Your task to perform on an android device: Open Yahoo.com Image 0: 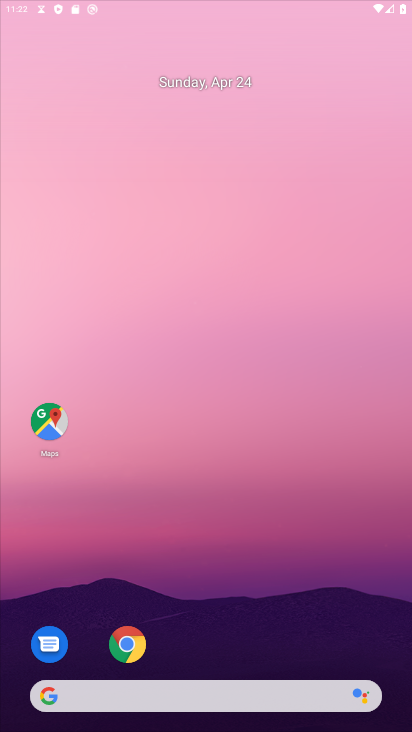
Step 0: click (367, 67)
Your task to perform on an android device: Open Yahoo.com Image 1: 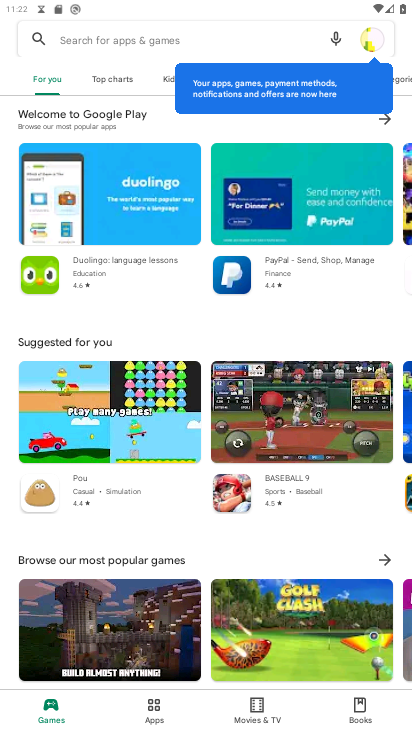
Step 1: press home button
Your task to perform on an android device: Open Yahoo.com Image 2: 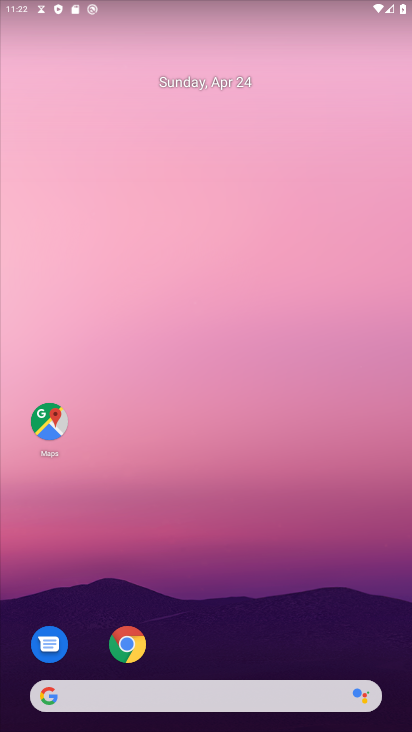
Step 2: click (130, 649)
Your task to perform on an android device: Open Yahoo.com Image 3: 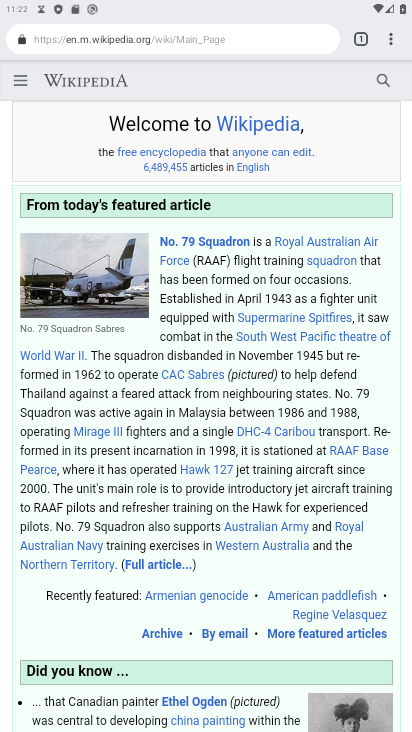
Step 3: click (149, 41)
Your task to perform on an android device: Open Yahoo.com Image 4: 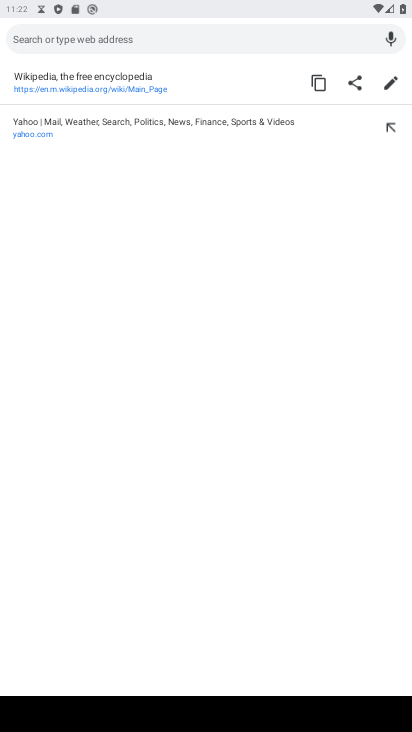
Step 4: type "yahoo.com"
Your task to perform on an android device: Open Yahoo.com Image 5: 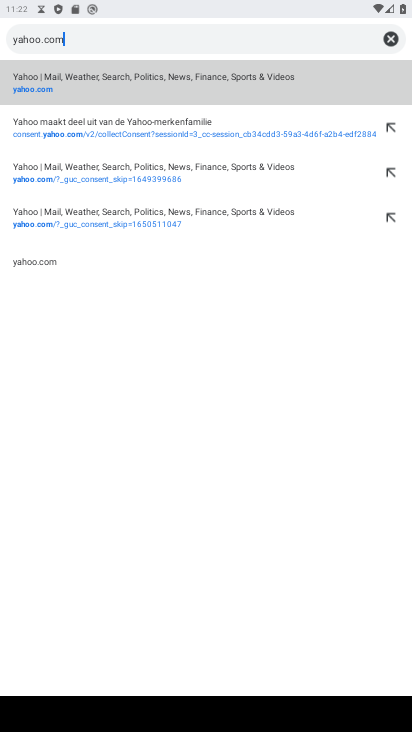
Step 5: click (41, 92)
Your task to perform on an android device: Open Yahoo.com Image 6: 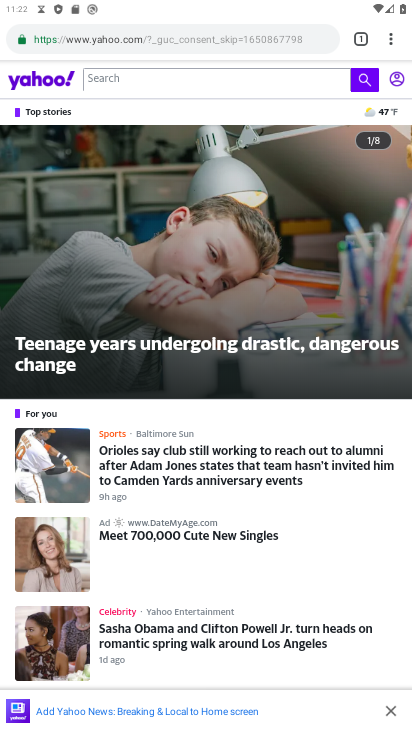
Step 6: task complete